Your task to perform on an android device: open wifi settings Image 0: 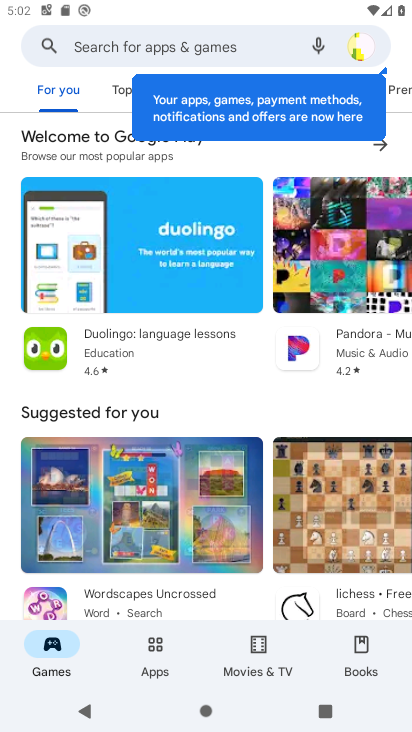
Step 0: press home button
Your task to perform on an android device: open wifi settings Image 1: 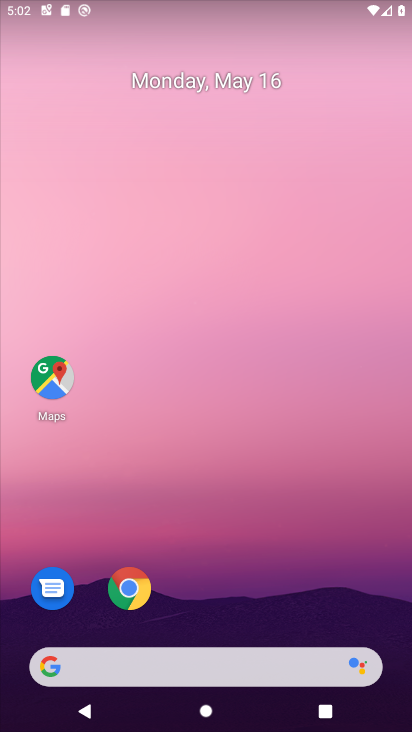
Step 1: drag from (254, 564) to (152, 76)
Your task to perform on an android device: open wifi settings Image 2: 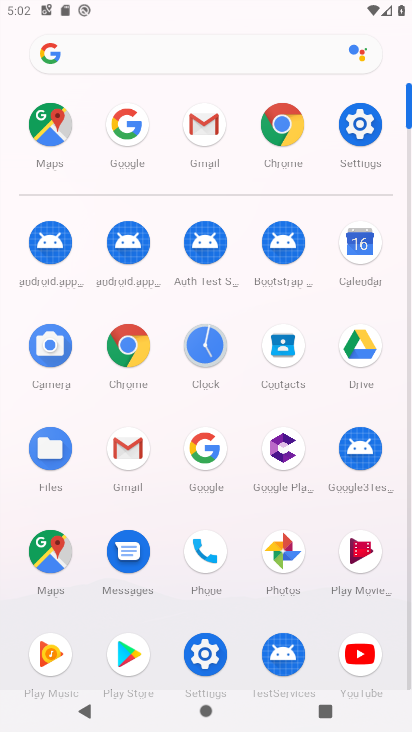
Step 2: click (358, 119)
Your task to perform on an android device: open wifi settings Image 3: 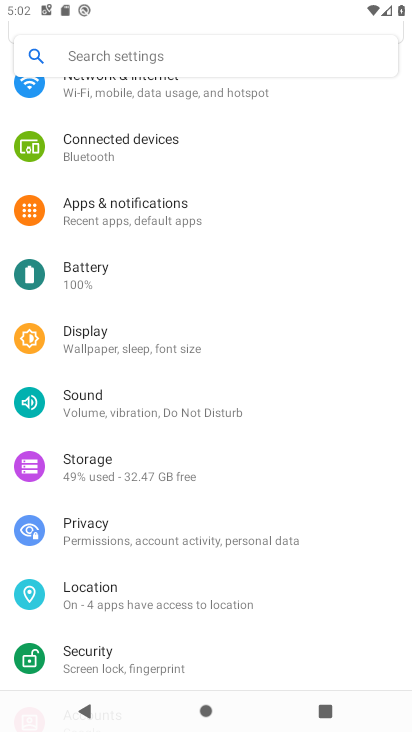
Step 3: drag from (262, 217) to (235, 575)
Your task to perform on an android device: open wifi settings Image 4: 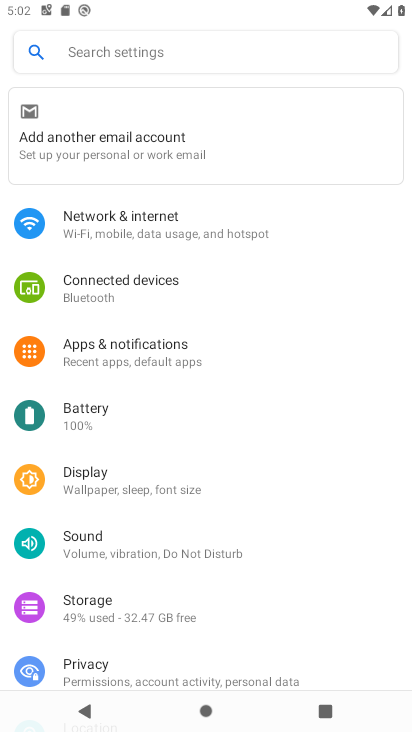
Step 4: click (211, 226)
Your task to perform on an android device: open wifi settings Image 5: 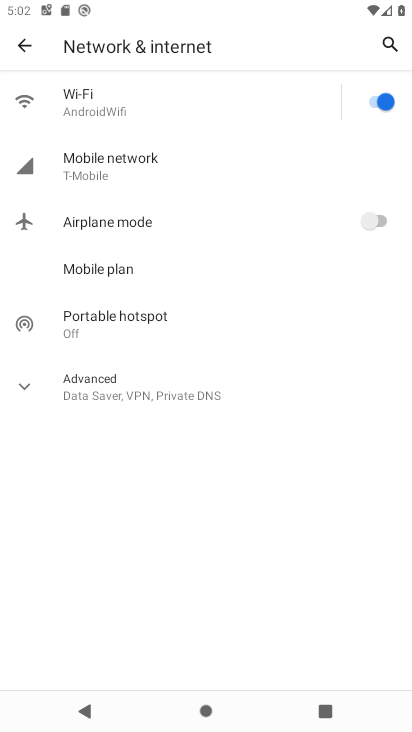
Step 5: click (169, 105)
Your task to perform on an android device: open wifi settings Image 6: 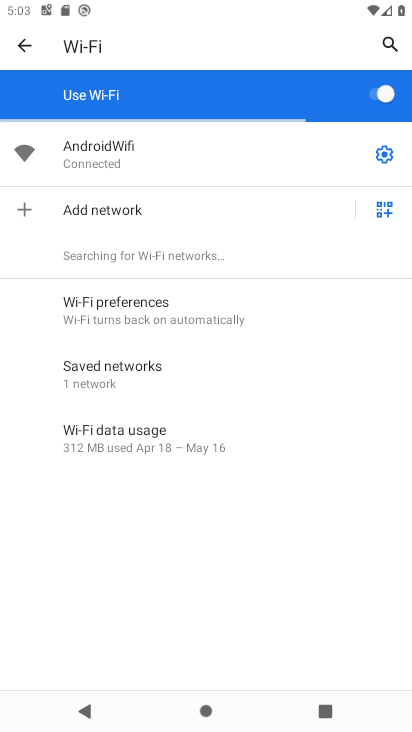
Step 6: task complete